Your task to perform on an android device: Do I have any events today? Image 0: 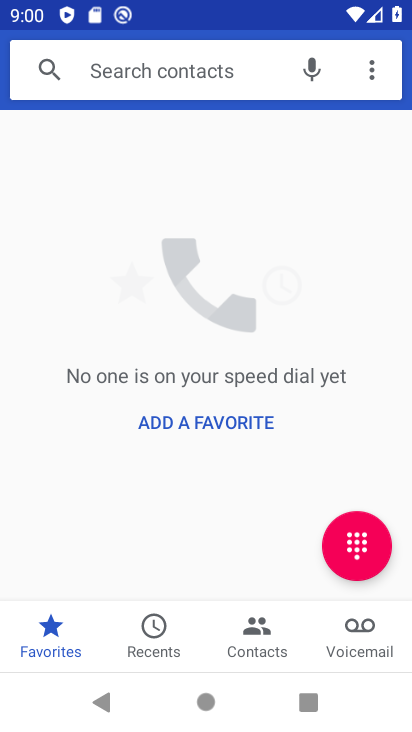
Step 0: press home button
Your task to perform on an android device: Do I have any events today? Image 1: 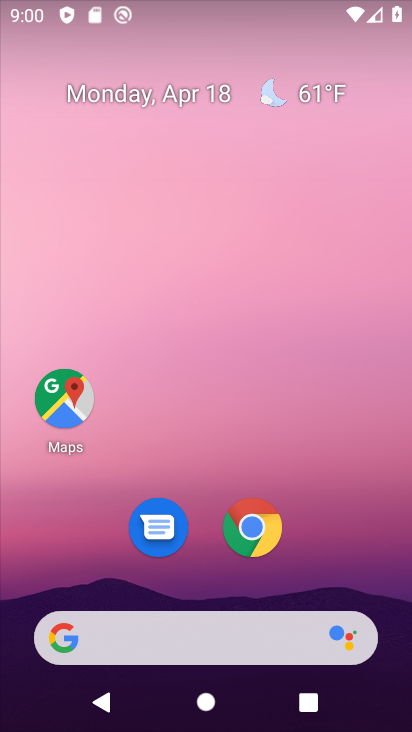
Step 1: click (167, 99)
Your task to perform on an android device: Do I have any events today? Image 2: 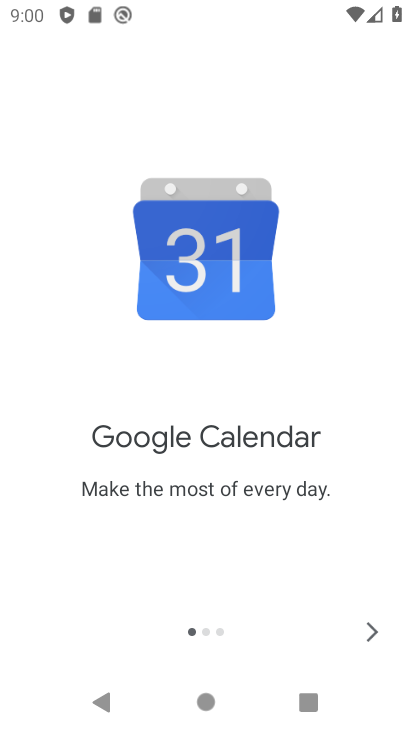
Step 2: click (377, 640)
Your task to perform on an android device: Do I have any events today? Image 3: 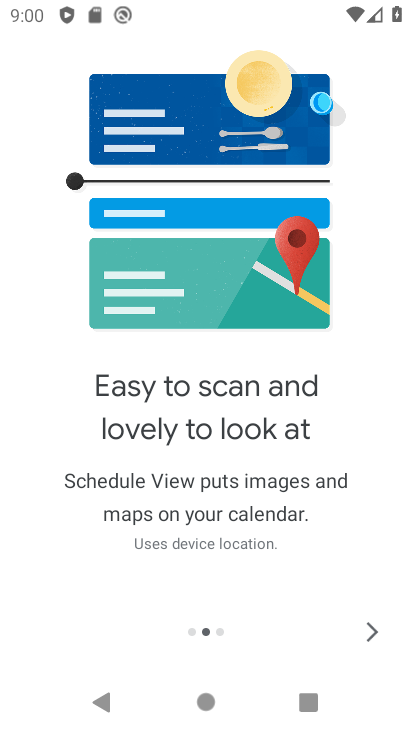
Step 3: click (377, 640)
Your task to perform on an android device: Do I have any events today? Image 4: 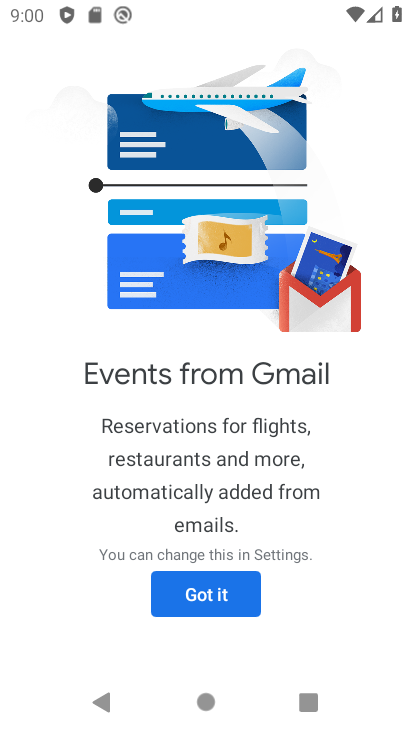
Step 4: click (193, 586)
Your task to perform on an android device: Do I have any events today? Image 5: 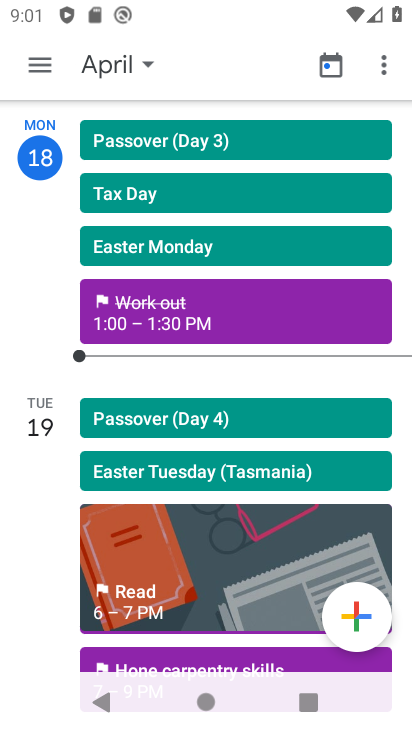
Step 5: drag from (13, 618) to (94, 145)
Your task to perform on an android device: Do I have any events today? Image 6: 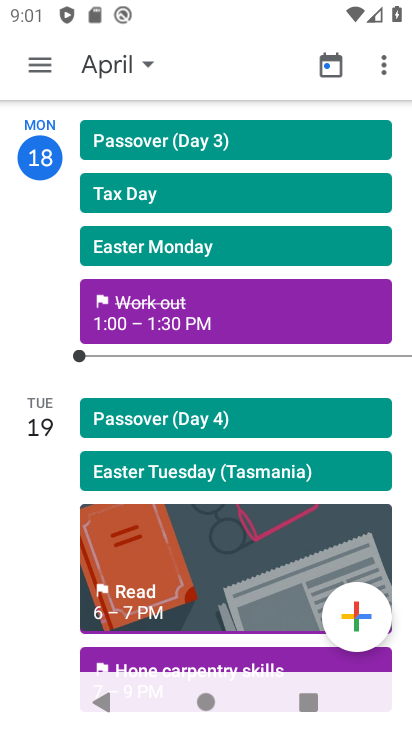
Step 6: drag from (59, 651) to (92, 35)
Your task to perform on an android device: Do I have any events today? Image 7: 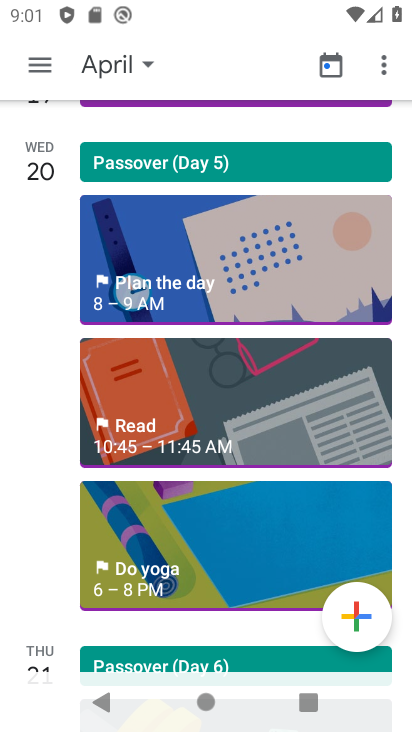
Step 7: drag from (57, 118) to (52, 589)
Your task to perform on an android device: Do I have any events today? Image 8: 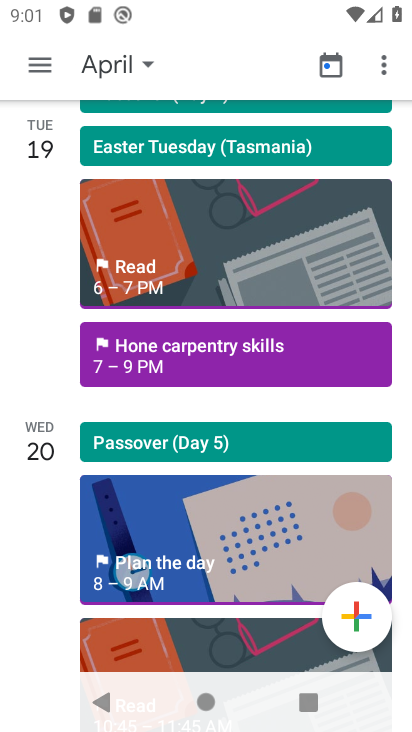
Step 8: click (157, 369)
Your task to perform on an android device: Do I have any events today? Image 9: 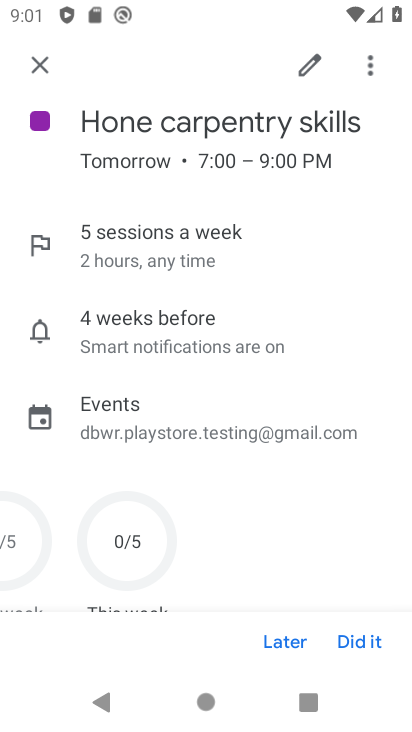
Step 9: task complete